Your task to perform on an android device: Open the phone app and click the voicemail tab. Image 0: 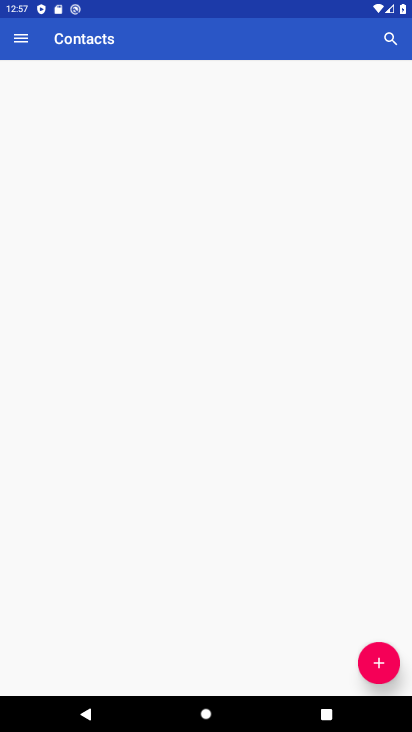
Step 0: press home button
Your task to perform on an android device: Open the phone app and click the voicemail tab. Image 1: 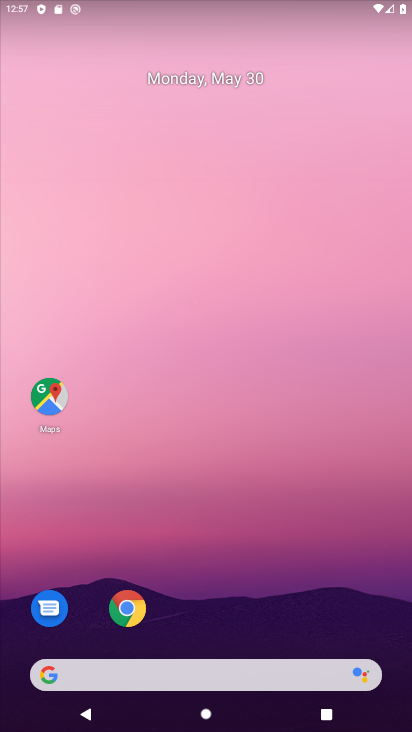
Step 1: drag from (174, 613) to (294, 180)
Your task to perform on an android device: Open the phone app and click the voicemail tab. Image 2: 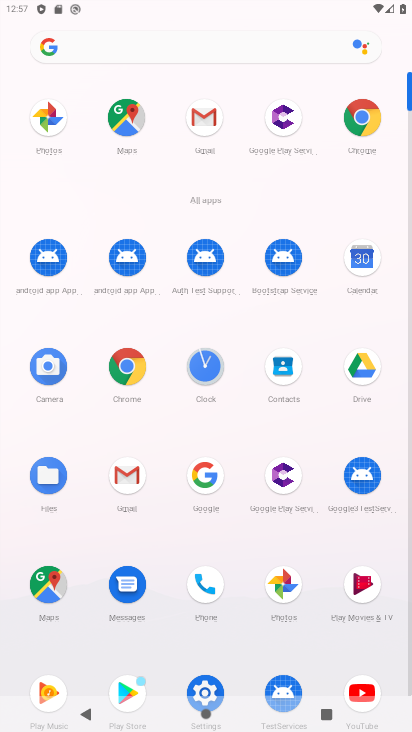
Step 2: drag from (148, 537) to (226, 186)
Your task to perform on an android device: Open the phone app and click the voicemail tab. Image 3: 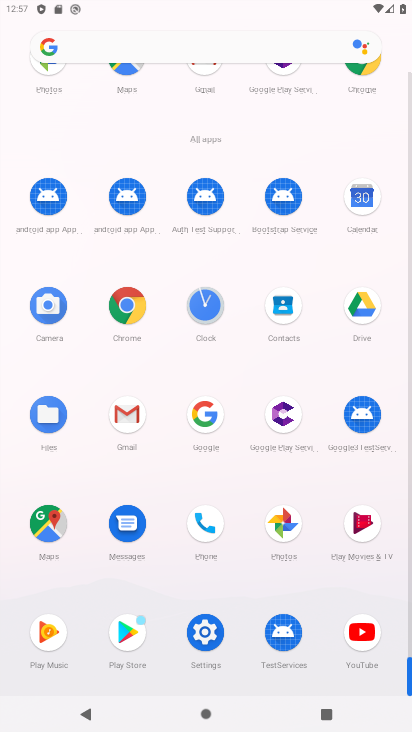
Step 3: click (212, 519)
Your task to perform on an android device: Open the phone app and click the voicemail tab. Image 4: 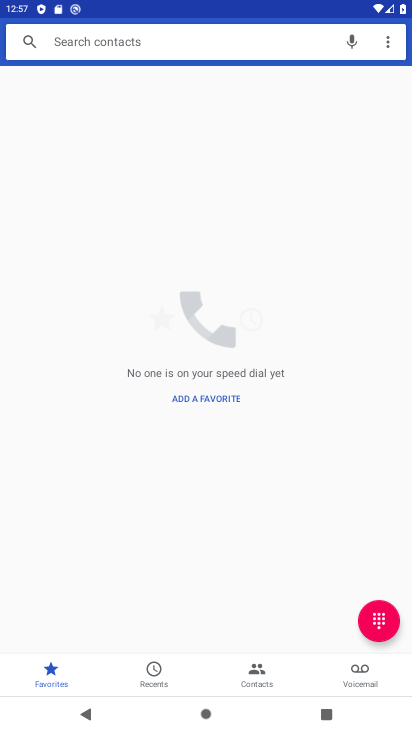
Step 4: click (364, 685)
Your task to perform on an android device: Open the phone app and click the voicemail tab. Image 5: 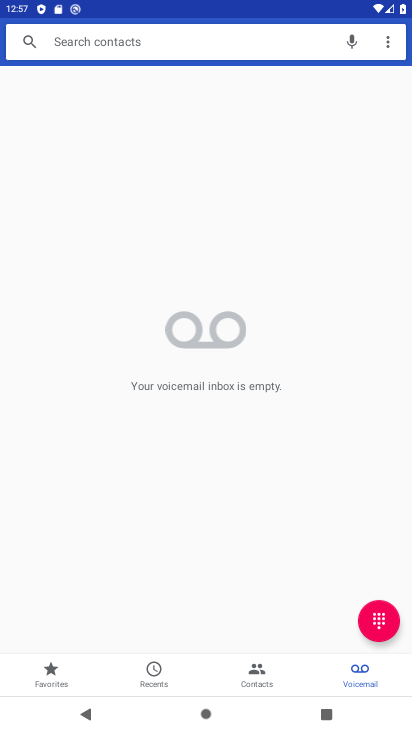
Step 5: task complete